Your task to perform on an android device: Open my contact list Image 0: 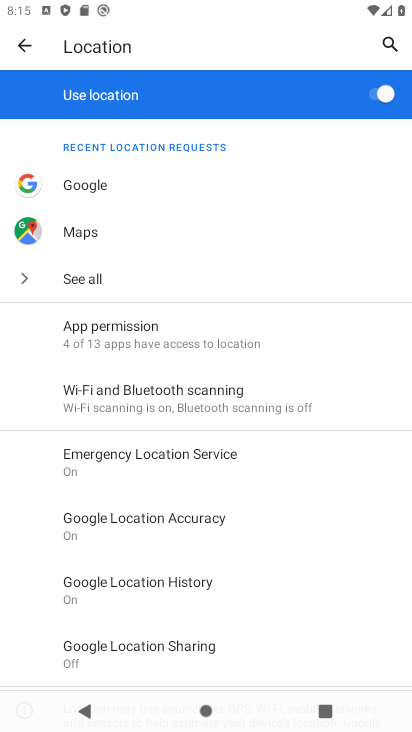
Step 0: press home button
Your task to perform on an android device: Open my contact list Image 1: 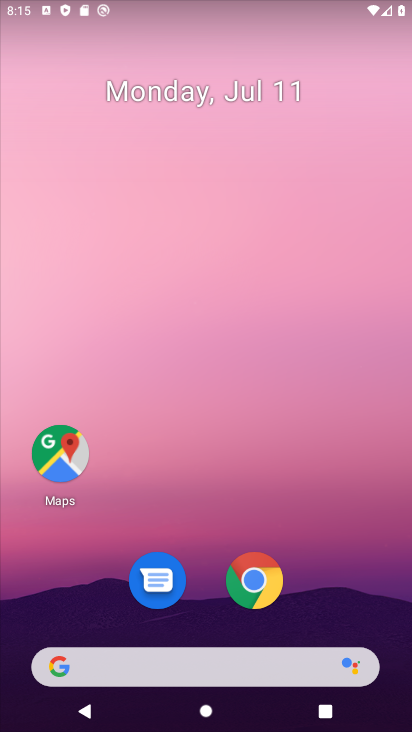
Step 1: drag from (224, 535) to (274, 10)
Your task to perform on an android device: Open my contact list Image 2: 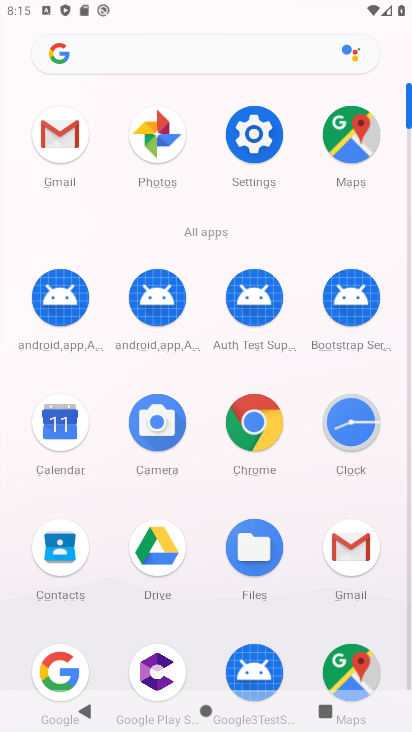
Step 2: click (53, 560)
Your task to perform on an android device: Open my contact list Image 3: 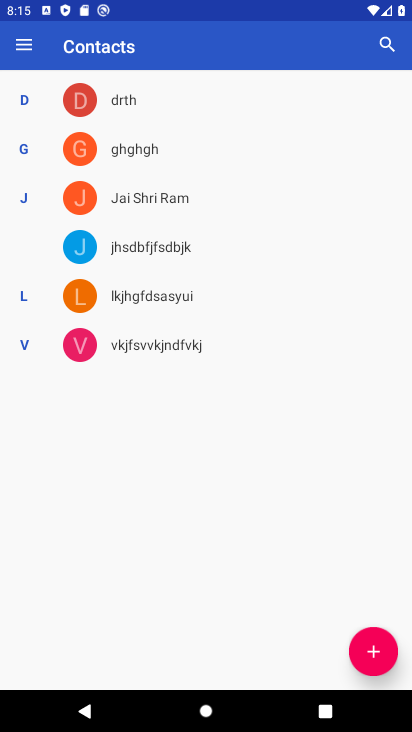
Step 3: task complete